Your task to perform on an android device: delete a single message in the gmail app Image 0: 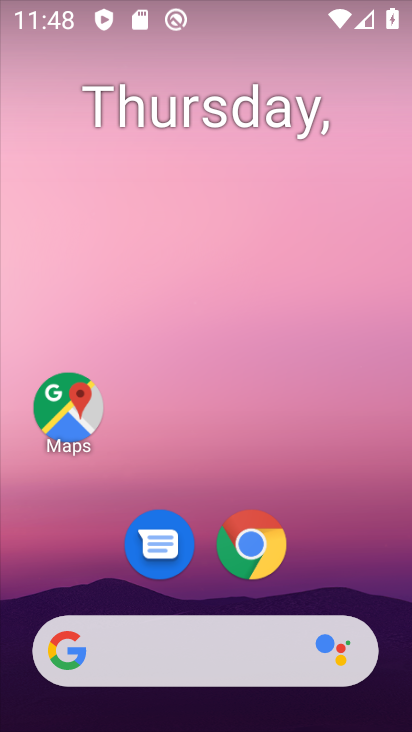
Step 0: drag from (200, 596) to (167, 32)
Your task to perform on an android device: delete a single message in the gmail app Image 1: 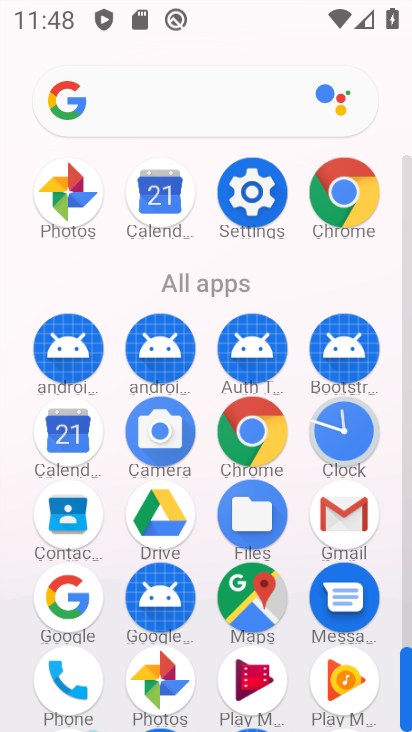
Step 1: click (336, 524)
Your task to perform on an android device: delete a single message in the gmail app Image 2: 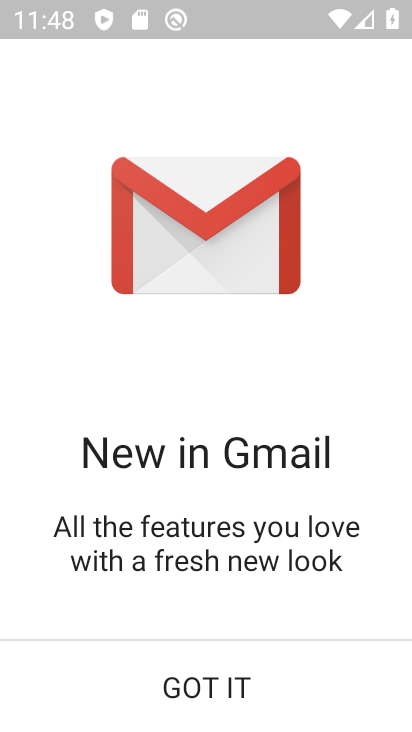
Step 2: click (167, 663)
Your task to perform on an android device: delete a single message in the gmail app Image 3: 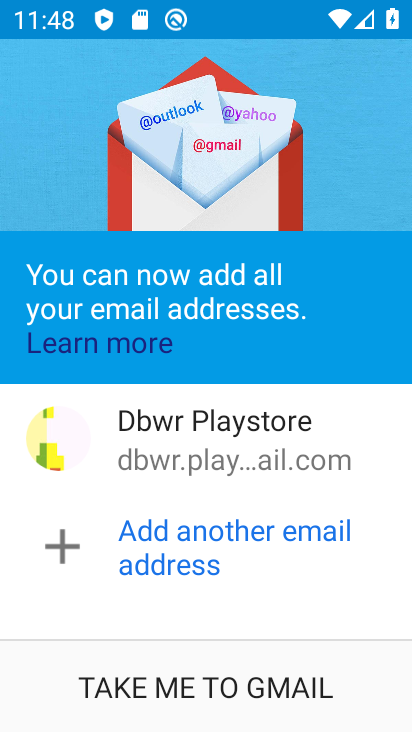
Step 3: click (219, 674)
Your task to perform on an android device: delete a single message in the gmail app Image 4: 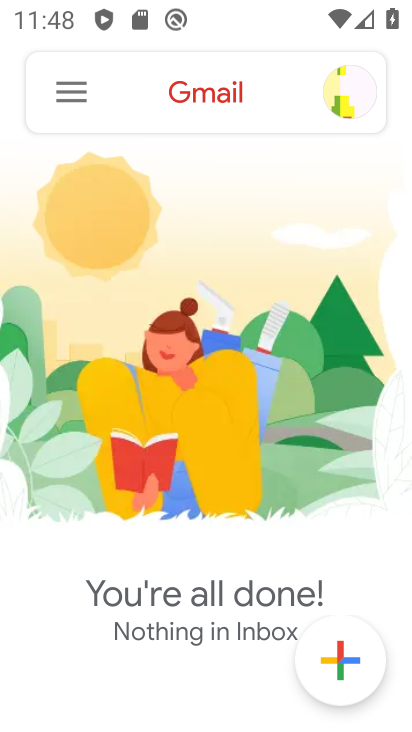
Step 4: click (61, 92)
Your task to perform on an android device: delete a single message in the gmail app Image 5: 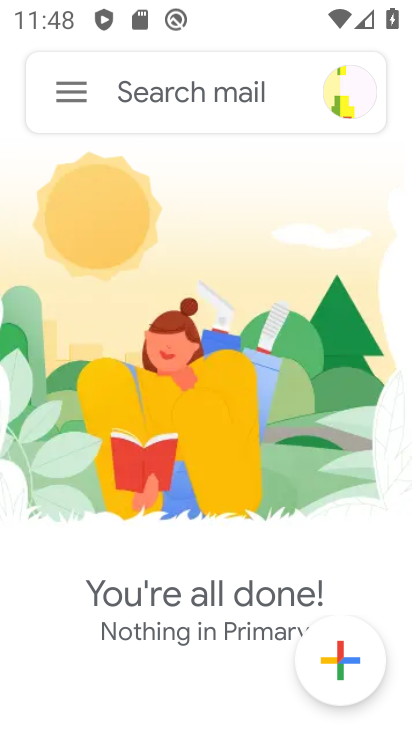
Step 5: click (63, 91)
Your task to perform on an android device: delete a single message in the gmail app Image 6: 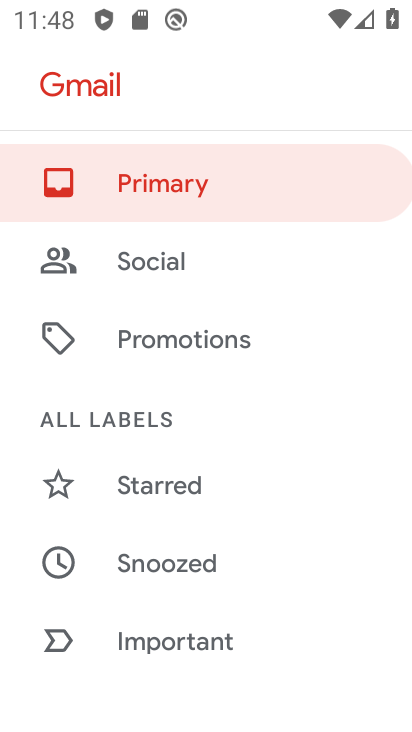
Step 6: click (152, 183)
Your task to perform on an android device: delete a single message in the gmail app Image 7: 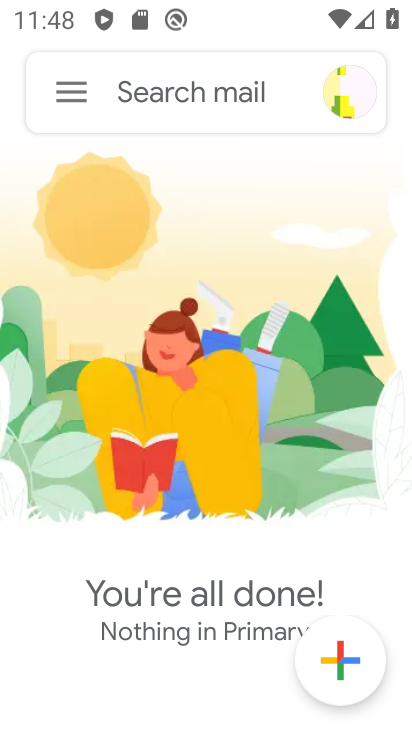
Step 7: task complete